Your task to perform on an android device: install app "Google Calendar" Image 0: 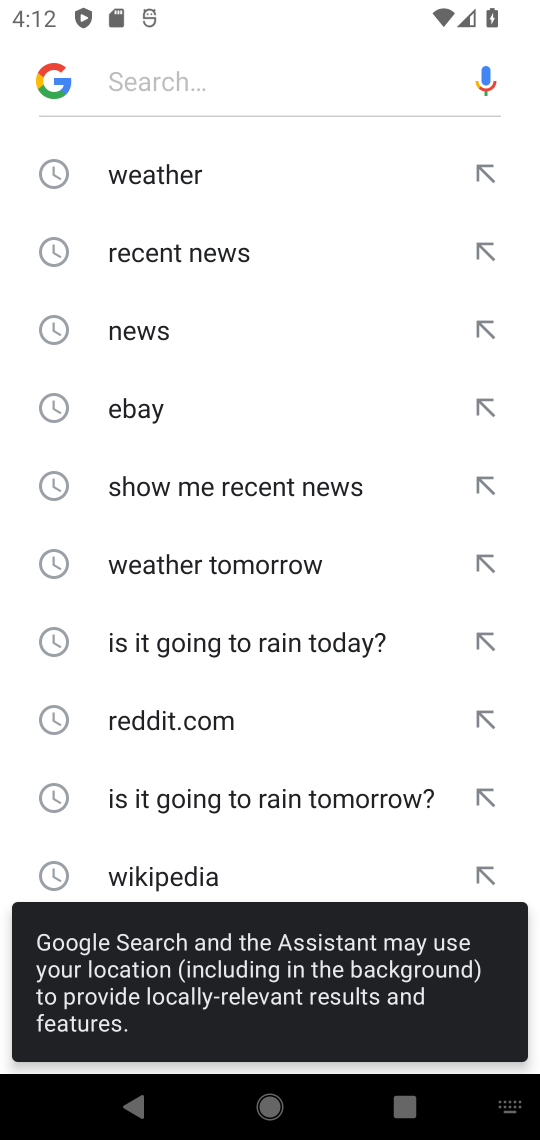
Step 0: press home button
Your task to perform on an android device: install app "Google Calendar" Image 1: 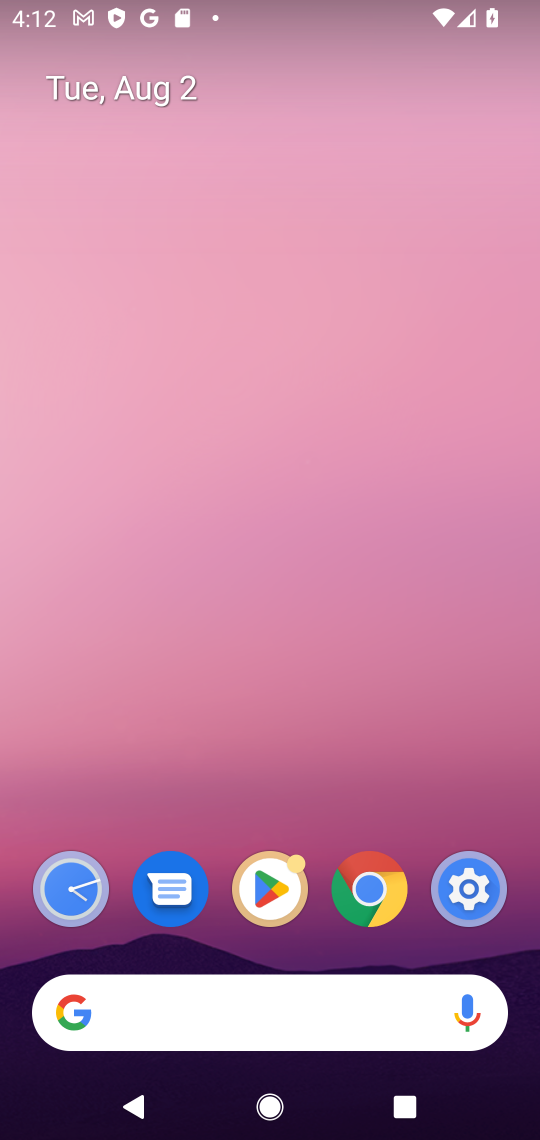
Step 1: drag from (421, 696) to (275, 114)
Your task to perform on an android device: install app "Google Calendar" Image 2: 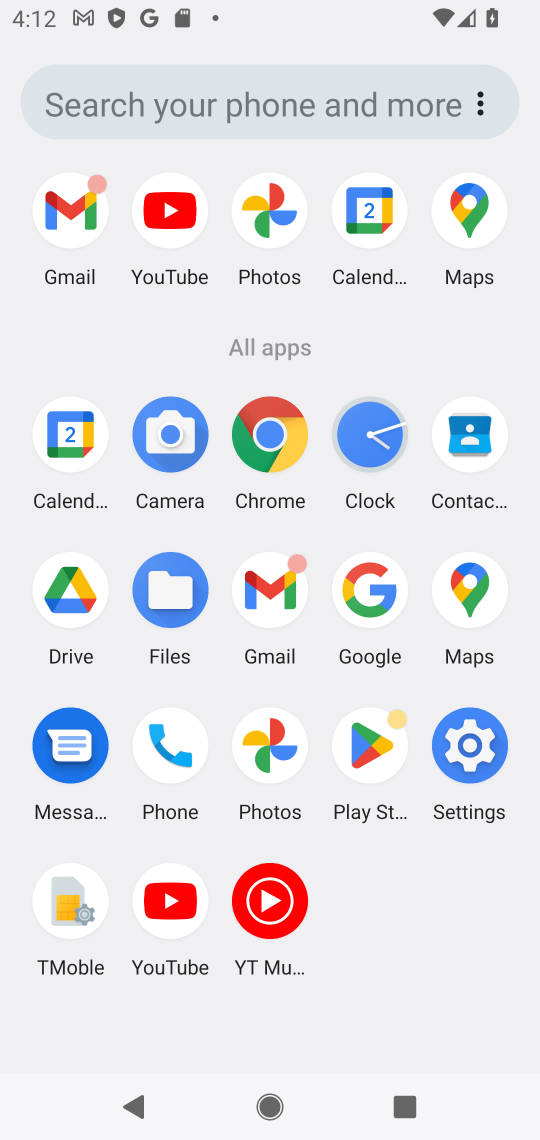
Step 2: click (55, 442)
Your task to perform on an android device: install app "Google Calendar" Image 3: 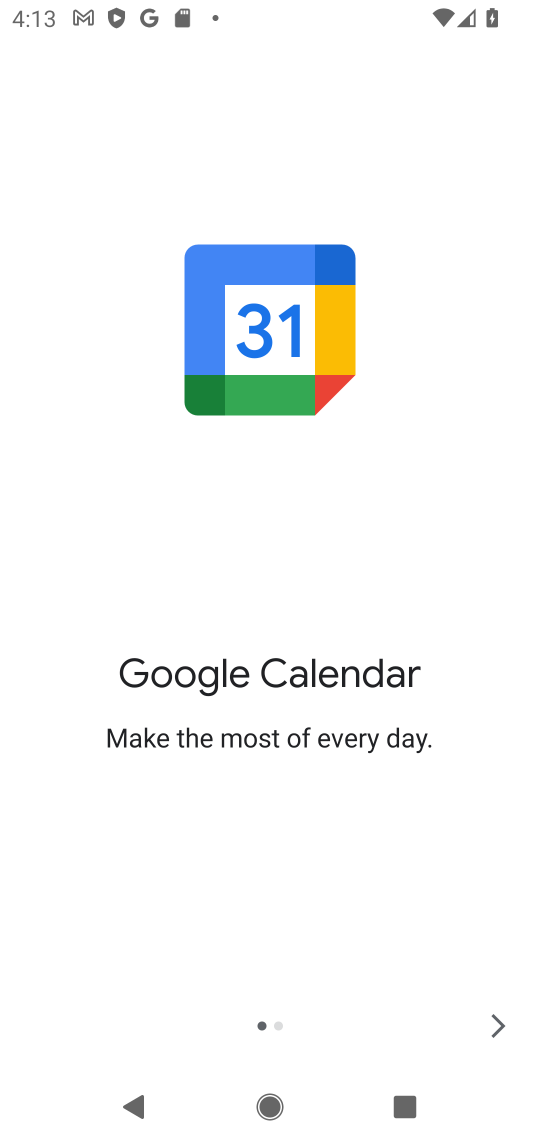
Step 3: click (501, 1016)
Your task to perform on an android device: install app "Google Calendar" Image 4: 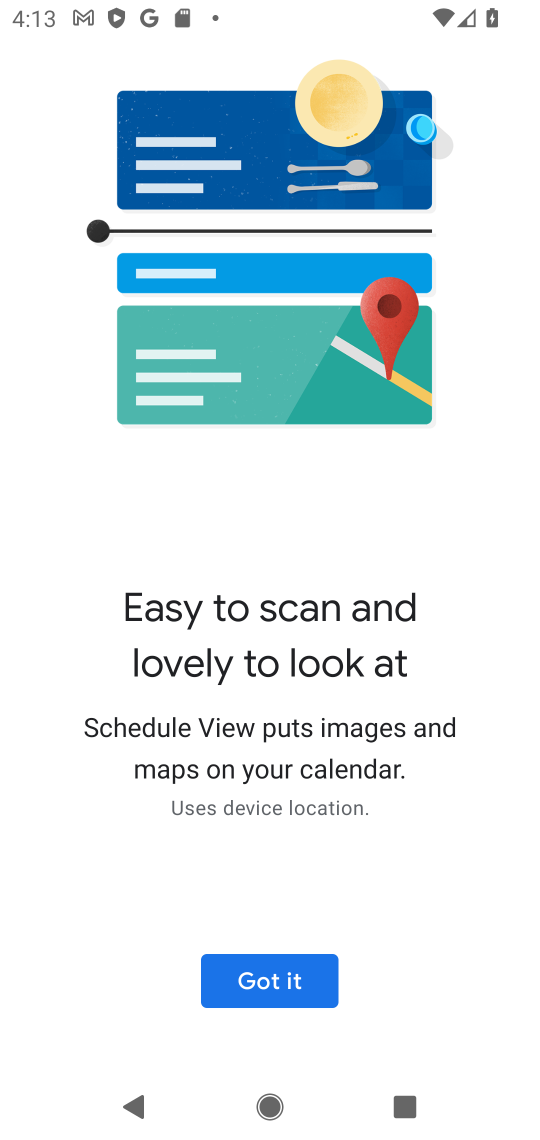
Step 4: click (270, 987)
Your task to perform on an android device: install app "Google Calendar" Image 5: 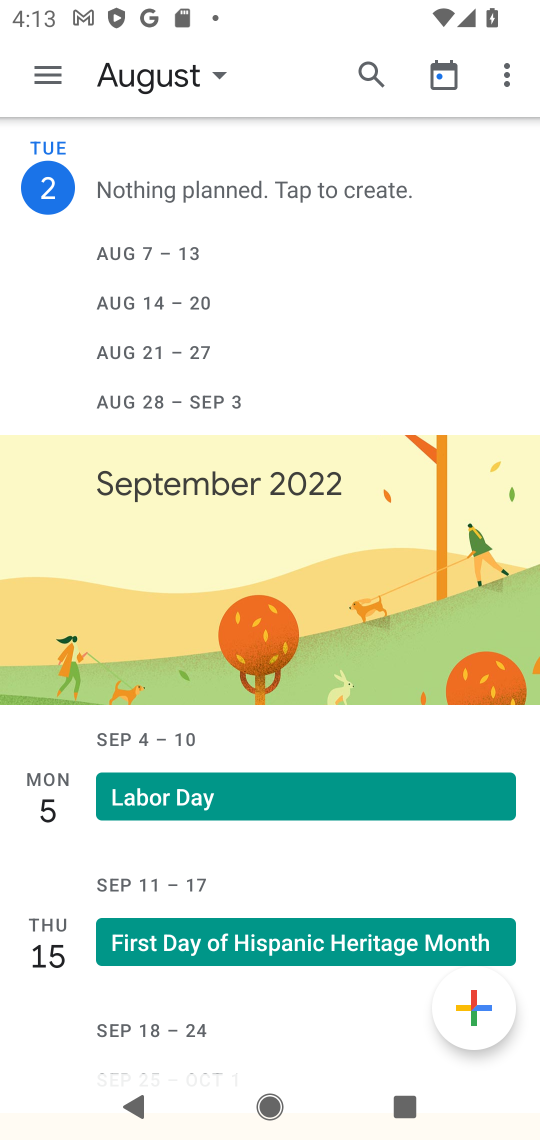
Step 5: task complete